Your task to perform on an android device: toggle airplane mode Image 0: 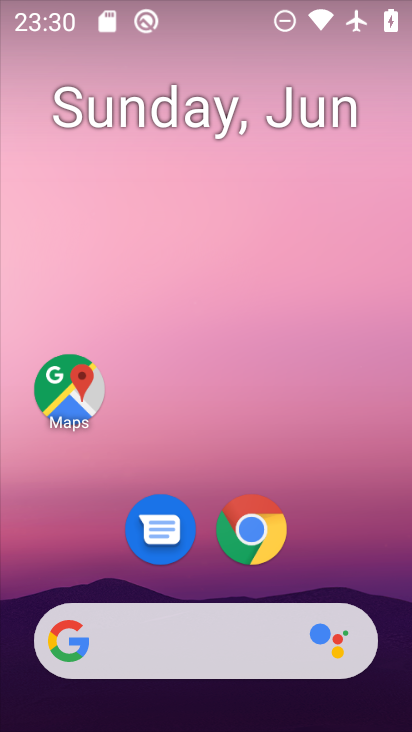
Step 0: drag from (393, 633) to (341, 79)
Your task to perform on an android device: toggle airplane mode Image 1: 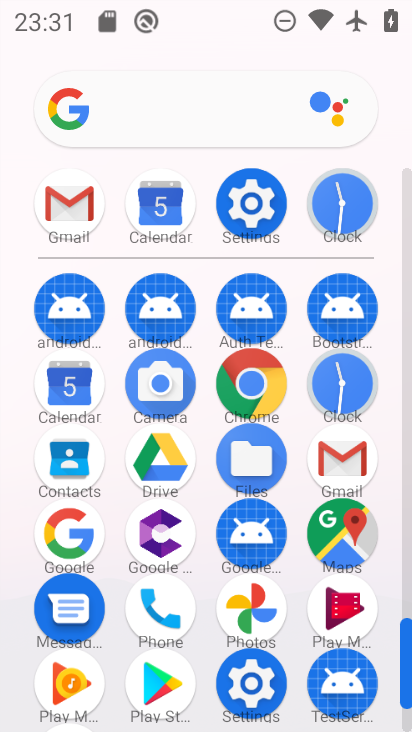
Step 1: click (244, 683)
Your task to perform on an android device: toggle airplane mode Image 2: 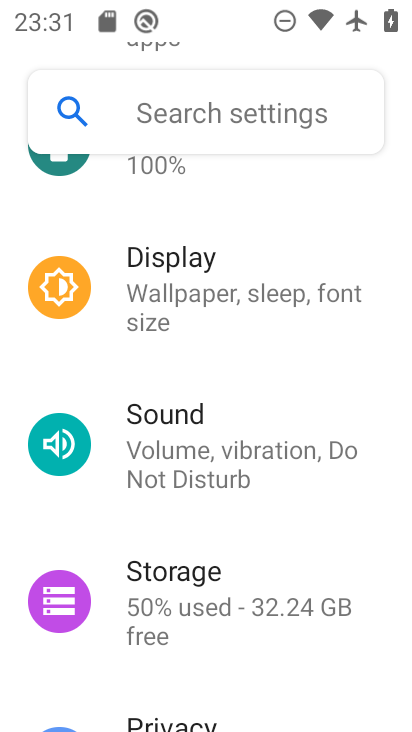
Step 2: drag from (316, 271) to (298, 533)
Your task to perform on an android device: toggle airplane mode Image 3: 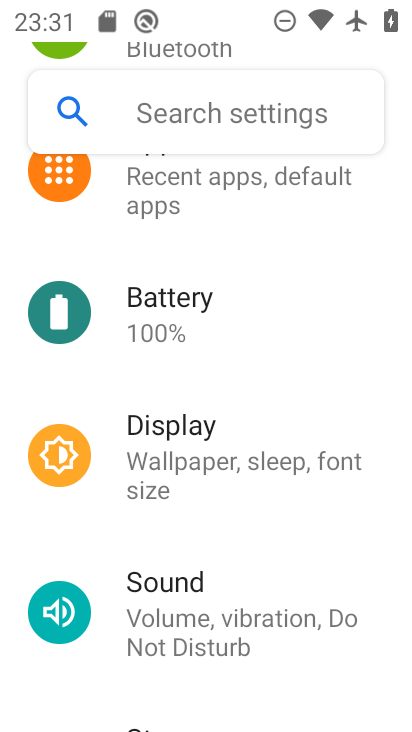
Step 3: drag from (338, 164) to (300, 496)
Your task to perform on an android device: toggle airplane mode Image 4: 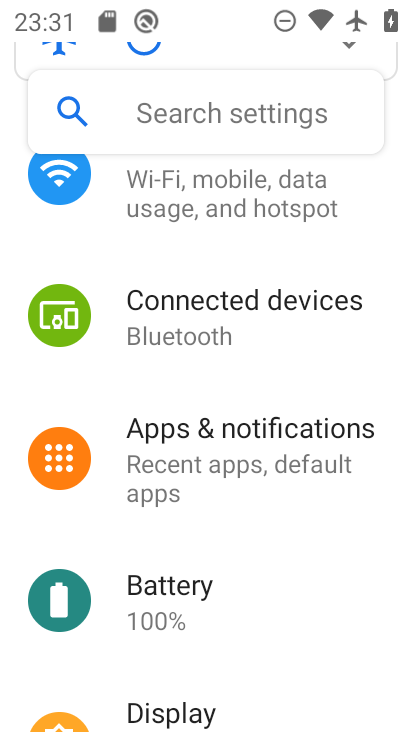
Step 4: click (207, 192)
Your task to perform on an android device: toggle airplane mode Image 5: 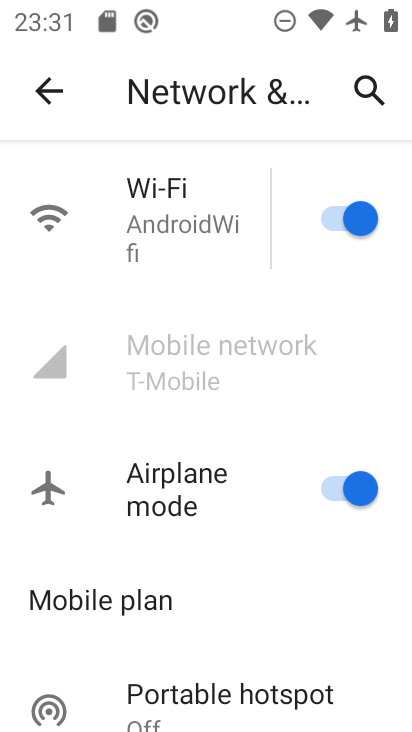
Step 5: click (325, 487)
Your task to perform on an android device: toggle airplane mode Image 6: 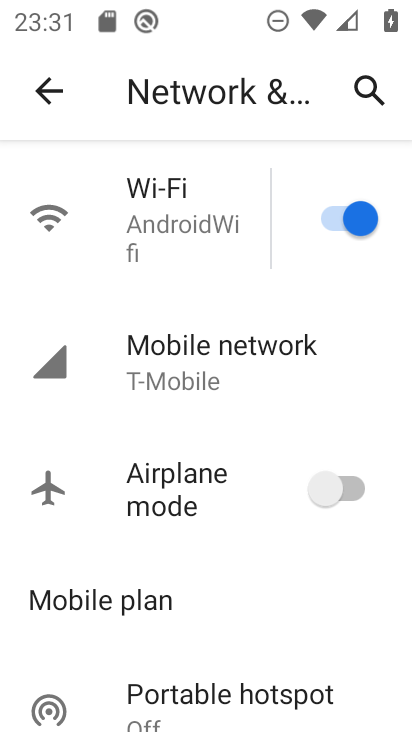
Step 6: task complete